Your task to perform on an android device: Search for the best vacuum on Walmart Image 0: 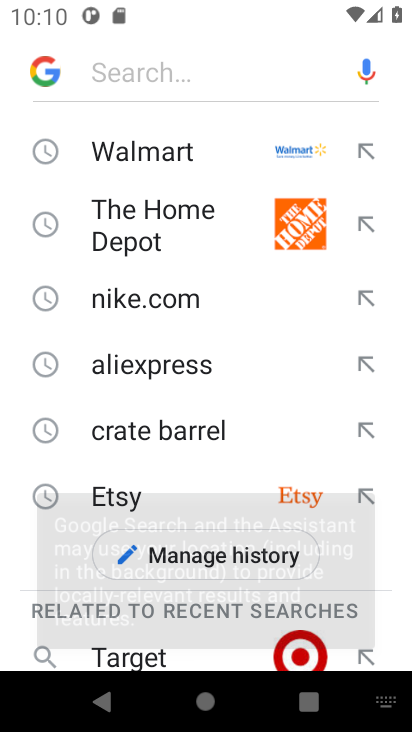
Step 0: press home button
Your task to perform on an android device: Search for the best vacuum on Walmart Image 1: 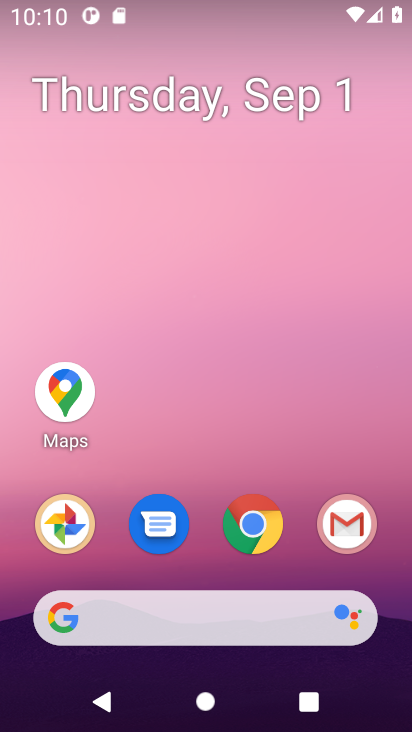
Step 1: drag from (397, 521) to (352, 184)
Your task to perform on an android device: Search for the best vacuum on Walmart Image 2: 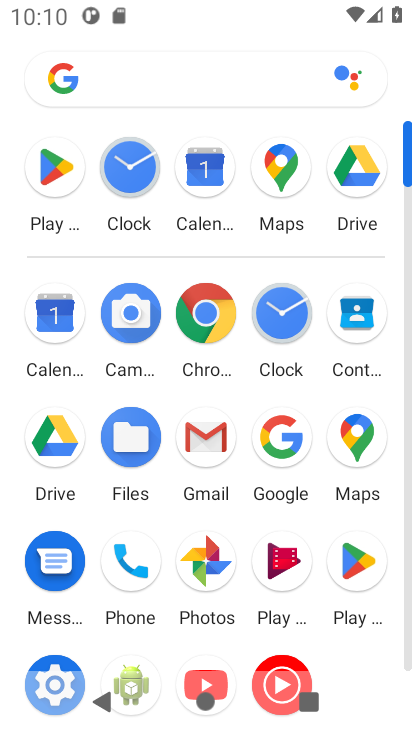
Step 2: click (210, 315)
Your task to perform on an android device: Search for the best vacuum on Walmart Image 3: 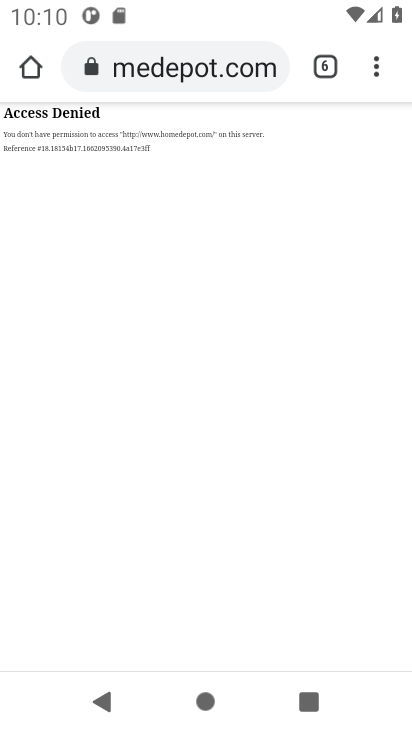
Step 3: click (214, 61)
Your task to perform on an android device: Search for the best vacuum on Walmart Image 4: 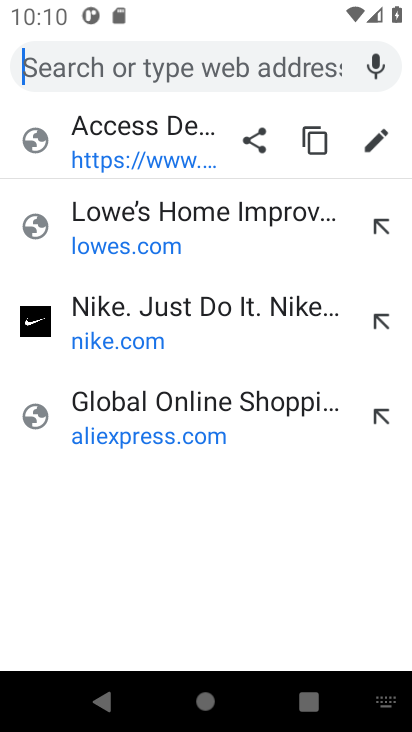
Step 4: press enter
Your task to perform on an android device: Search for the best vacuum on Walmart Image 5: 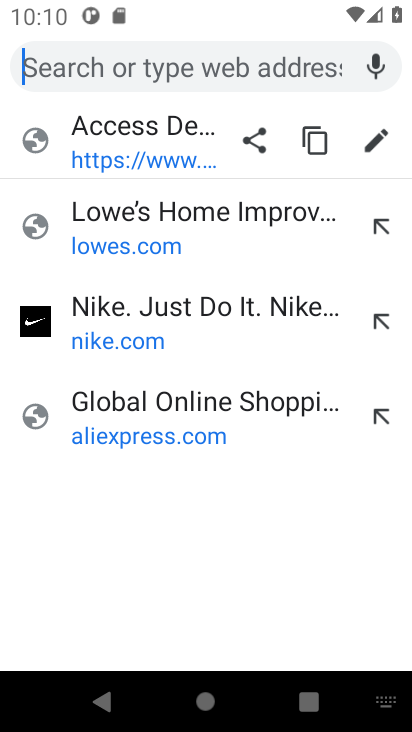
Step 5: type "walmart"
Your task to perform on an android device: Search for the best vacuum on Walmart Image 6: 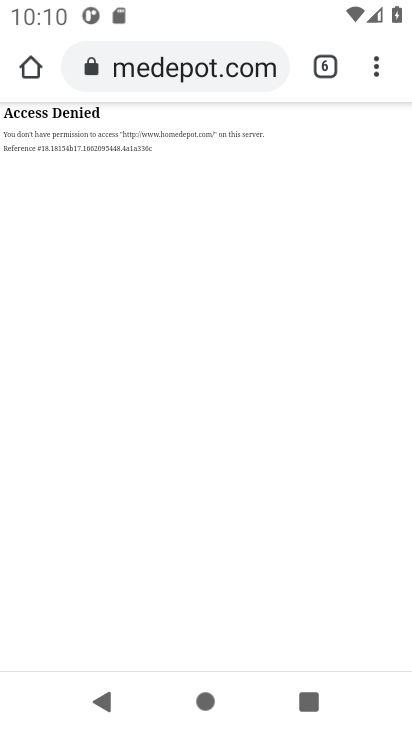
Step 6: click (374, 68)
Your task to perform on an android device: Search for the best vacuum on Walmart Image 7: 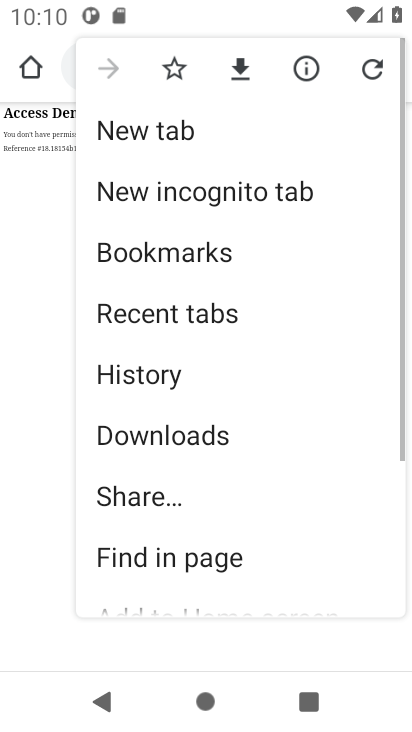
Step 7: click (158, 122)
Your task to perform on an android device: Search for the best vacuum on Walmart Image 8: 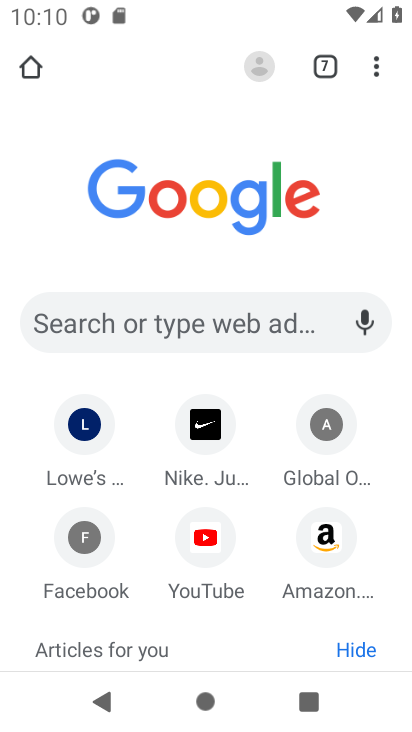
Step 8: click (253, 319)
Your task to perform on an android device: Search for the best vacuum on Walmart Image 9: 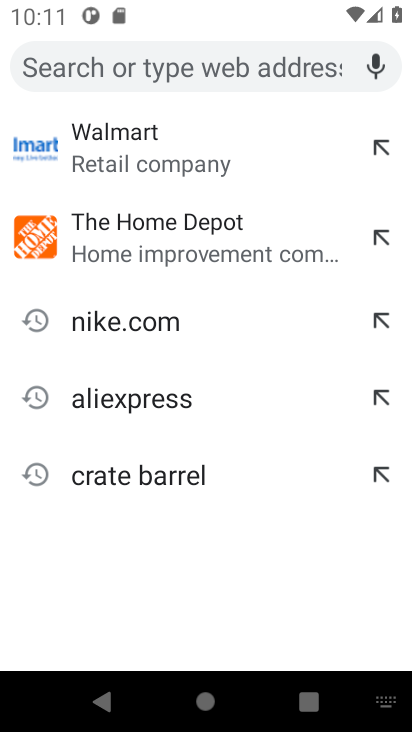
Step 9: click (138, 154)
Your task to perform on an android device: Search for the best vacuum on Walmart Image 10: 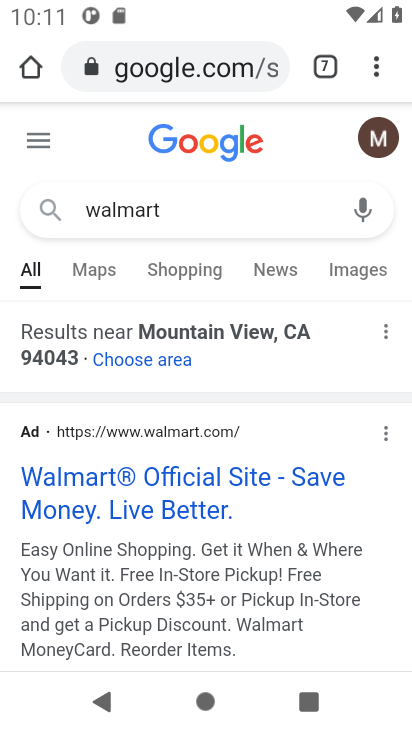
Step 10: click (230, 491)
Your task to perform on an android device: Search for the best vacuum on Walmart Image 11: 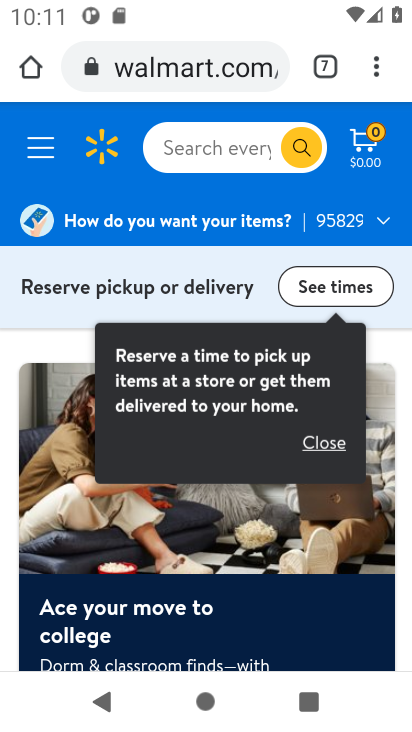
Step 11: click (330, 438)
Your task to perform on an android device: Search for the best vacuum on Walmart Image 12: 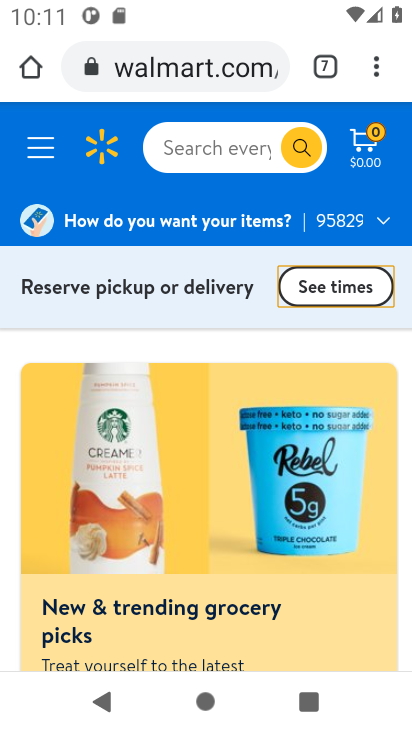
Step 12: click (206, 148)
Your task to perform on an android device: Search for the best vacuum on Walmart Image 13: 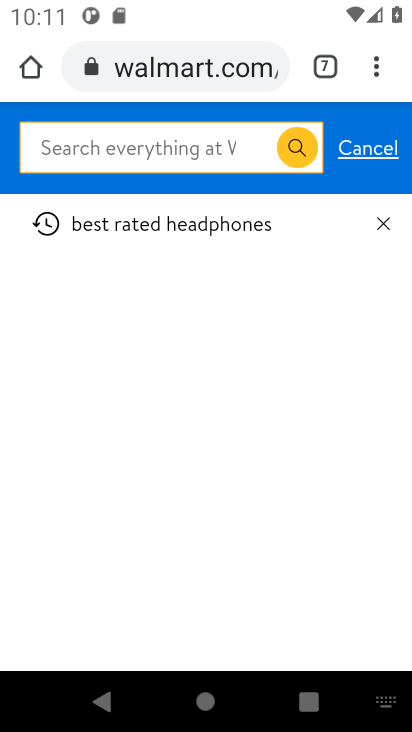
Step 13: press enter
Your task to perform on an android device: Search for the best vacuum on Walmart Image 14: 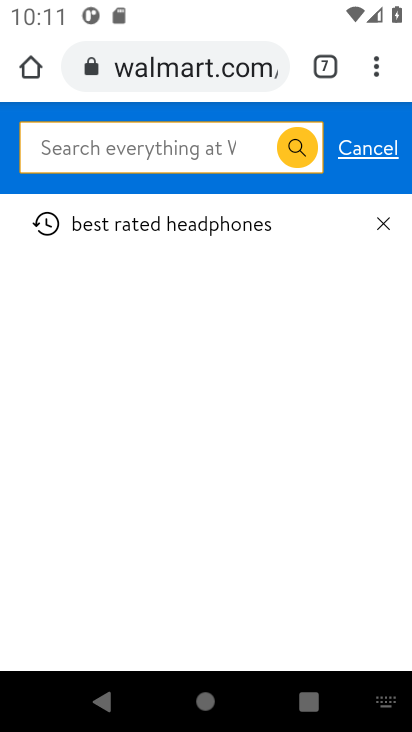
Step 14: type "best vacuum"
Your task to perform on an android device: Search for the best vacuum on Walmart Image 15: 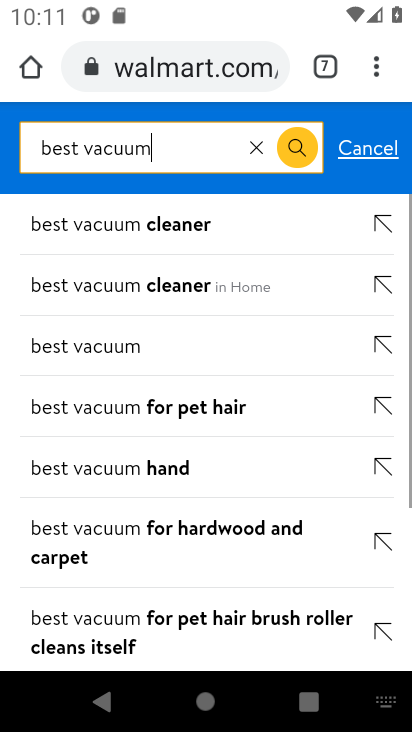
Step 15: click (142, 352)
Your task to perform on an android device: Search for the best vacuum on Walmart Image 16: 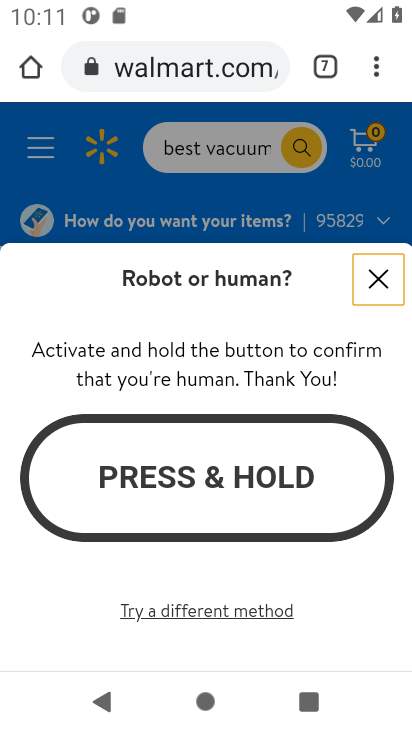
Step 16: click (381, 275)
Your task to perform on an android device: Search for the best vacuum on Walmart Image 17: 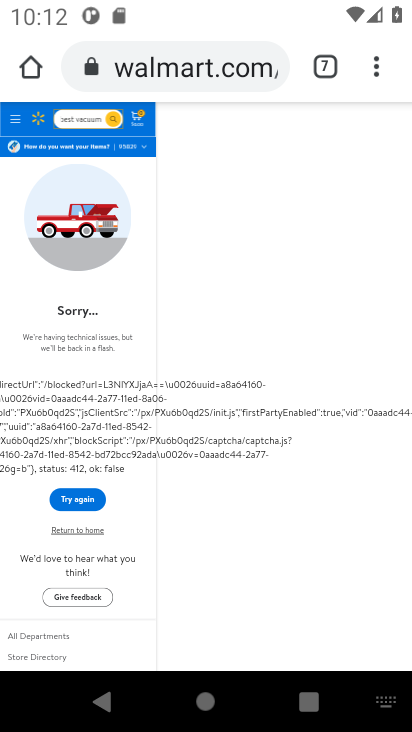
Step 17: task complete